Your task to perform on an android device: visit the assistant section in the google photos Image 0: 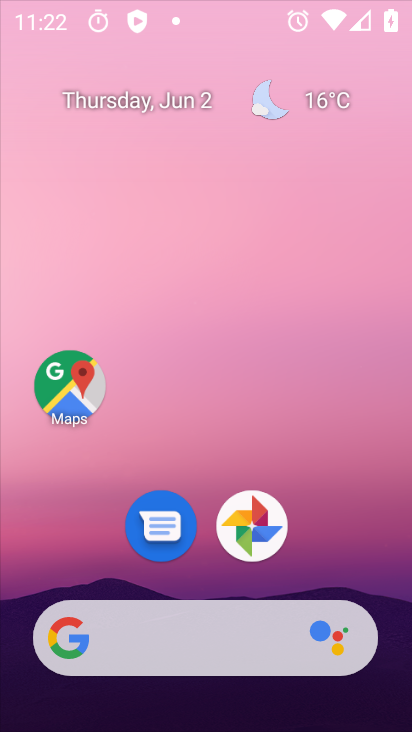
Step 0: drag from (129, 285) to (114, 181)
Your task to perform on an android device: visit the assistant section in the google photos Image 1: 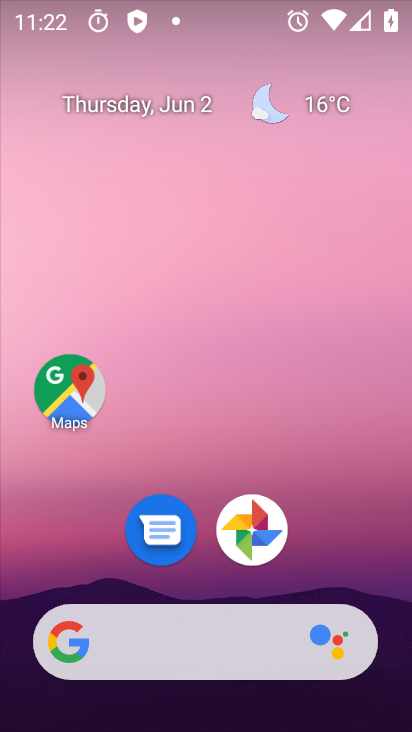
Step 1: drag from (163, 620) to (145, 188)
Your task to perform on an android device: visit the assistant section in the google photos Image 2: 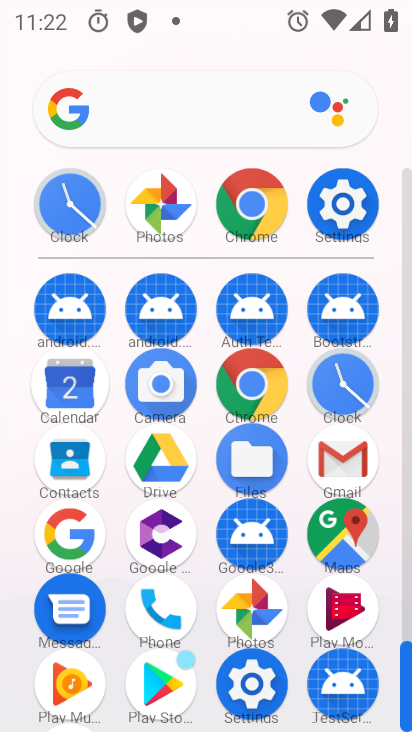
Step 2: click (249, 603)
Your task to perform on an android device: visit the assistant section in the google photos Image 3: 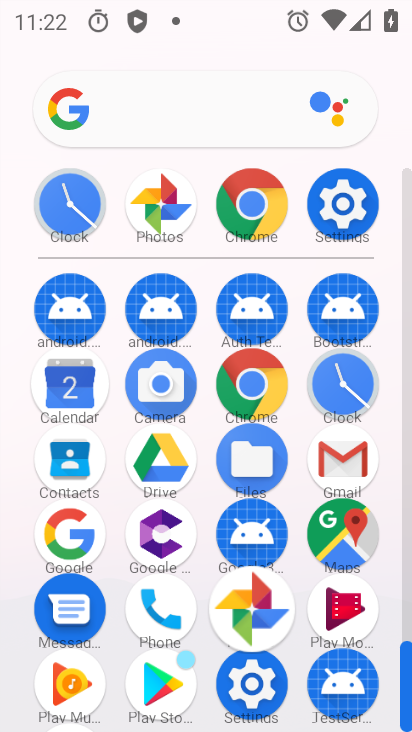
Step 3: click (249, 603)
Your task to perform on an android device: visit the assistant section in the google photos Image 4: 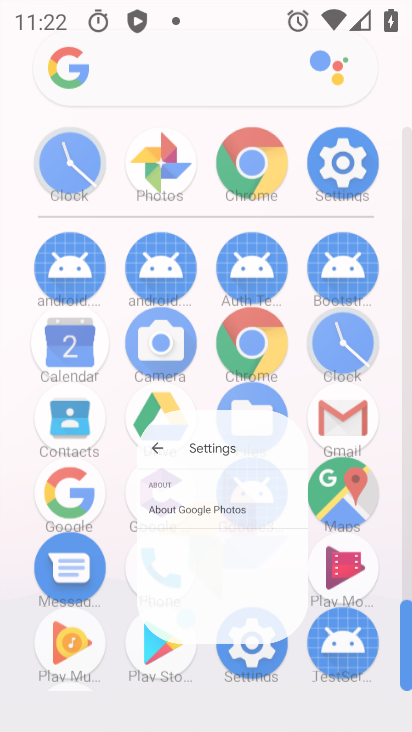
Step 4: click (251, 597)
Your task to perform on an android device: visit the assistant section in the google photos Image 5: 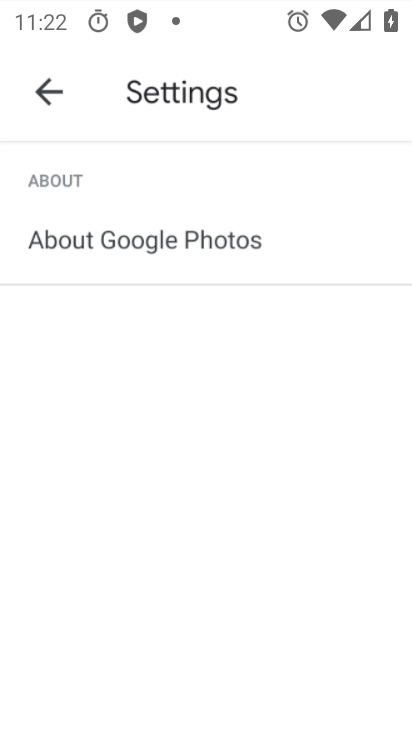
Step 5: click (251, 597)
Your task to perform on an android device: visit the assistant section in the google photos Image 6: 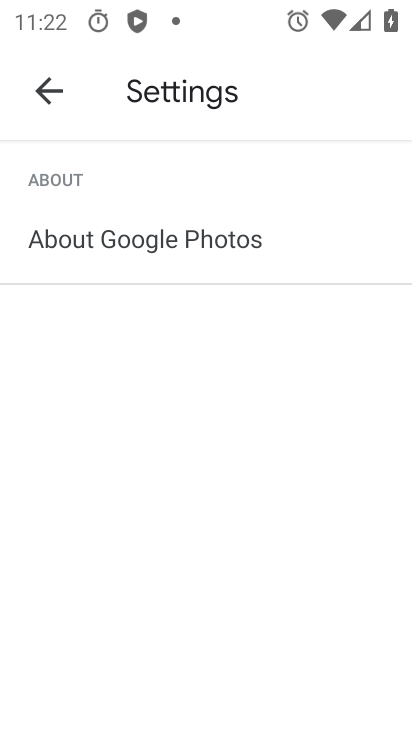
Step 6: click (45, 90)
Your task to perform on an android device: visit the assistant section in the google photos Image 7: 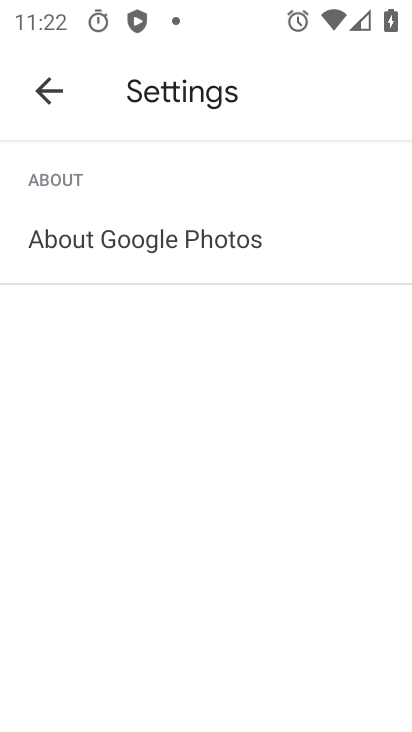
Step 7: click (45, 90)
Your task to perform on an android device: visit the assistant section in the google photos Image 8: 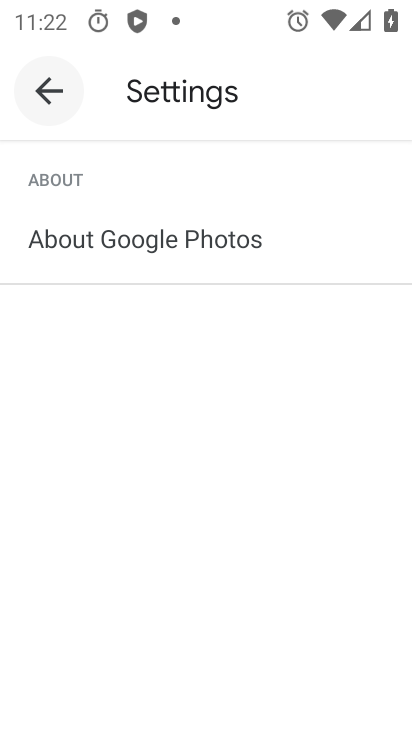
Step 8: click (45, 90)
Your task to perform on an android device: visit the assistant section in the google photos Image 9: 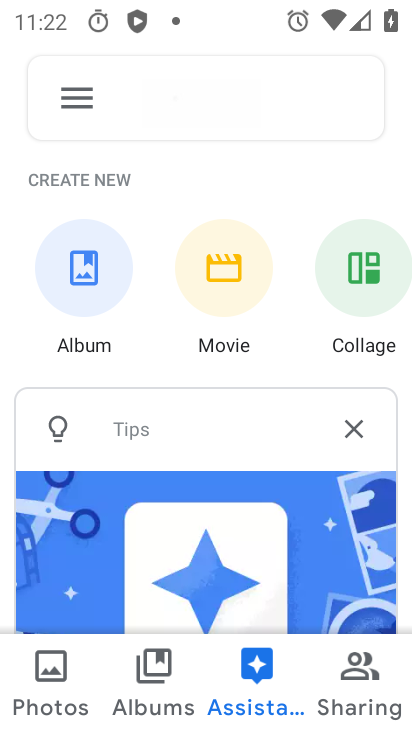
Step 9: click (265, 707)
Your task to perform on an android device: visit the assistant section in the google photos Image 10: 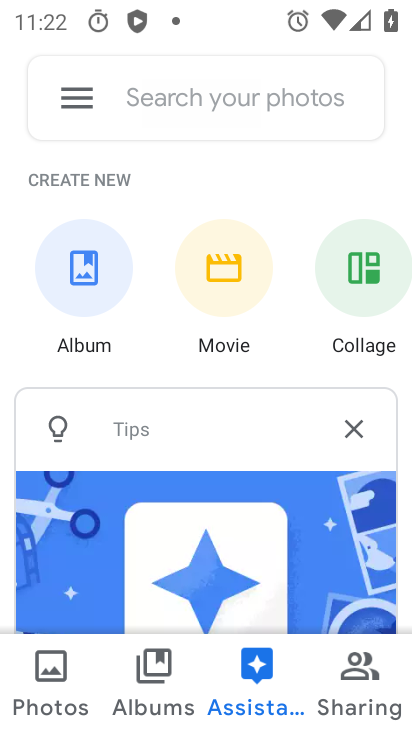
Step 10: click (265, 707)
Your task to perform on an android device: visit the assistant section in the google photos Image 11: 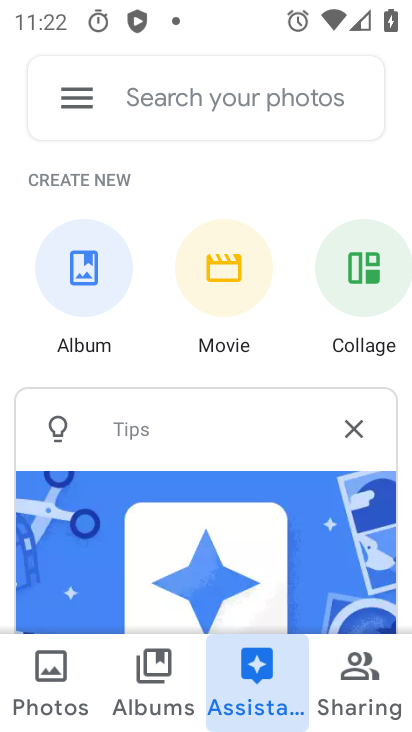
Step 11: click (265, 706)
Your task to perform on an android device: visit the assistant section in the google photos Image 12: 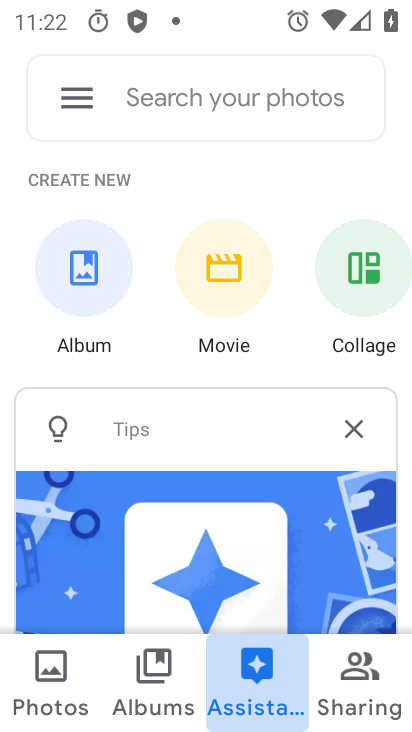
Step 12: task complete